Your task to perform on an android device: Go to Amazon Image 0: 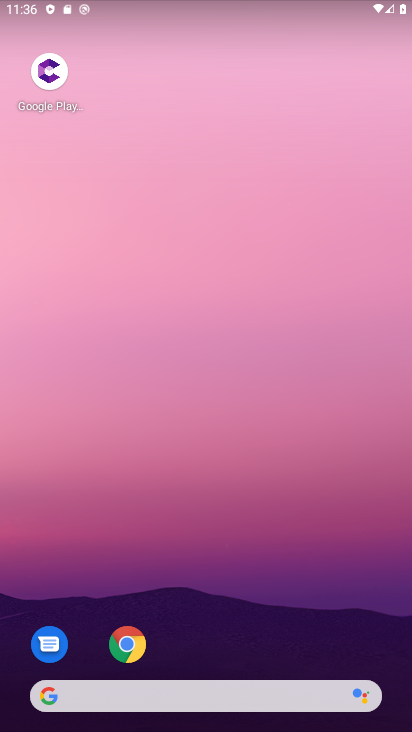
Step 0: drag from (191, 659) to (293, 136)
Your task to perform on an android device: Go to Amazon Image 1: 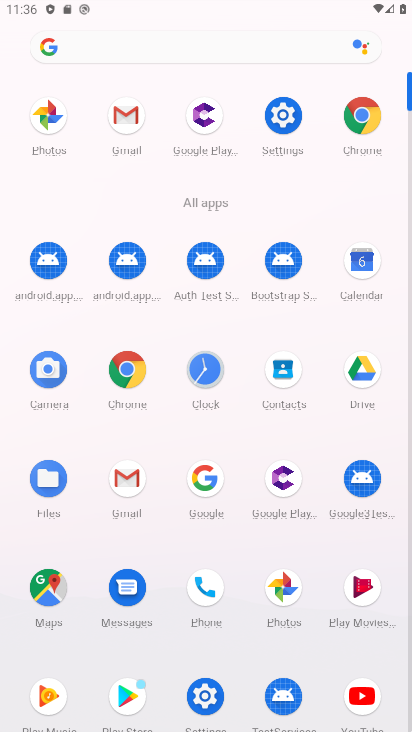
Step 1: click (133, 377)
Your task to perform on an android device: Go to Amazon Image 2: 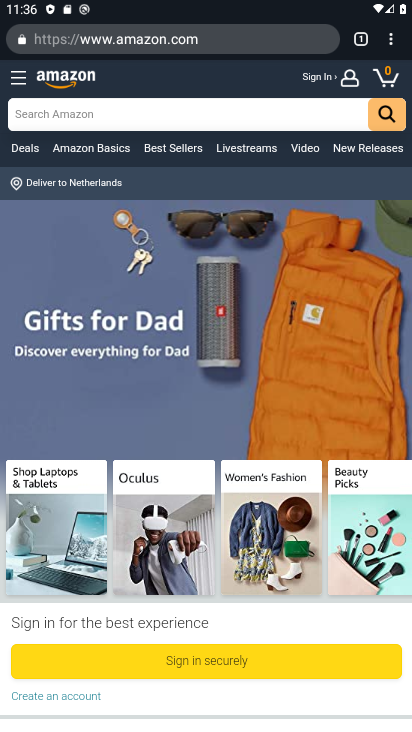
Step 2: task complete